Your task to perform on an android device: change the clock display to analog Image 0: 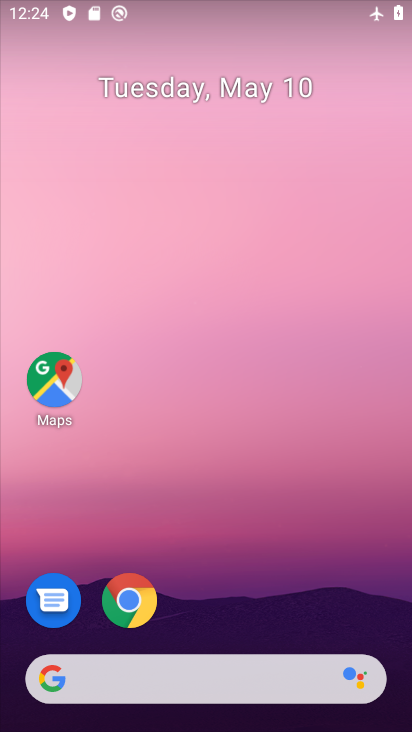
Step 0: drag from (195, 598) to (218, 120)
Your task to perform on an android device: change the clock display to analog Image 1: 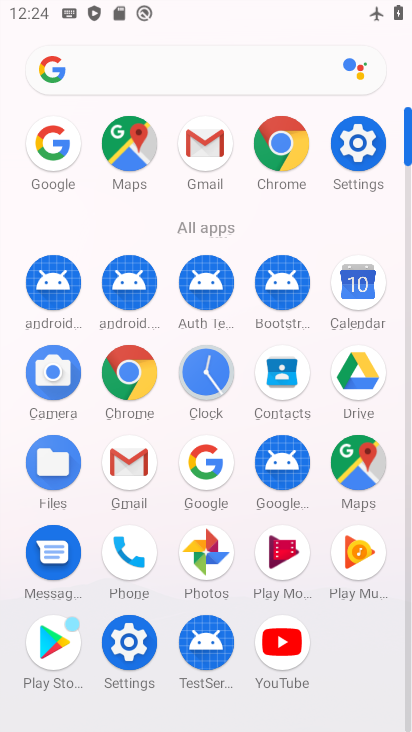
Step 1: click (223, 368)
Your task to perform on an android device: change the clock display to analog Image 2: 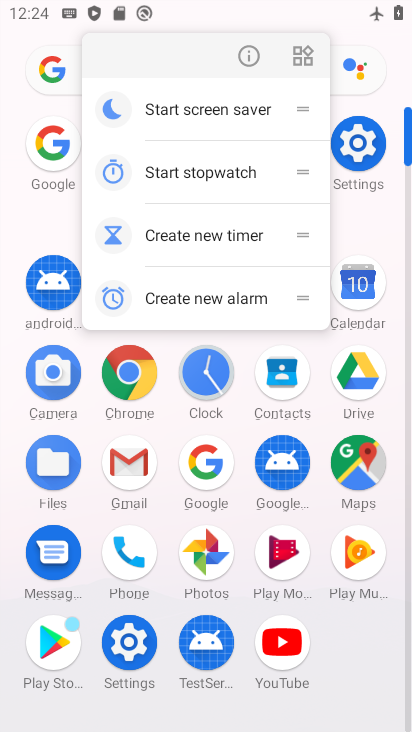
Step 2: click (217, 385)
Your task to perform on an android device: change the clock display to analog Image 3: 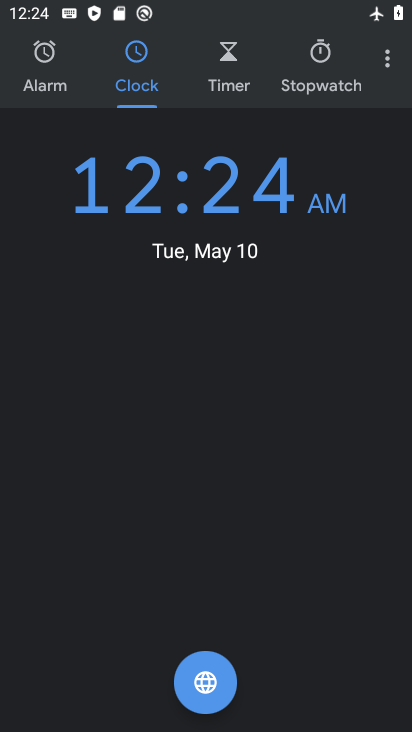
Step 3: click (403, 58)
Your task to perform on an android device: change the clock display to analog Image 4: 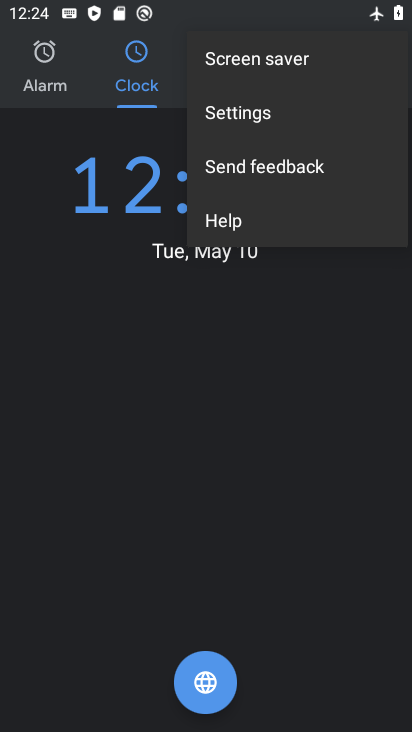
Step 4: click (253, 116)
Your task to perform on an android device: change the clock display to analog Image 5: 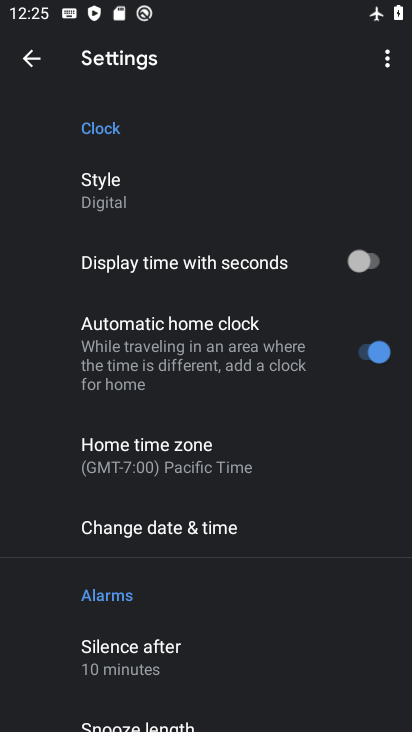
Step 5: click (149, 192)
Your task to perform on an android device: change the clock display to analog Image 6: 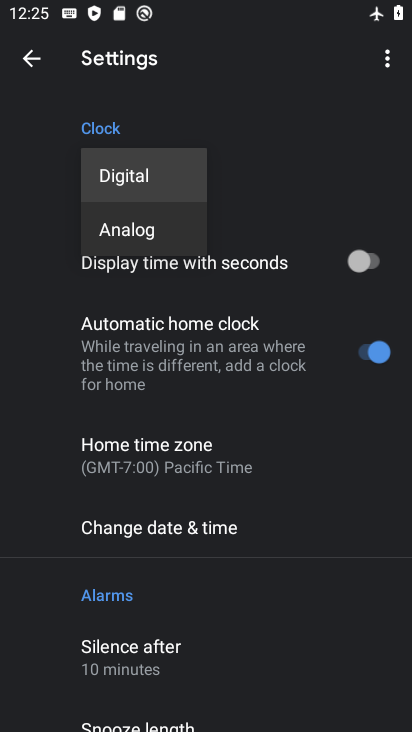
Step 6: click (122, 240)
Your task to perform on an android device: change the clock display to analog Image 7: 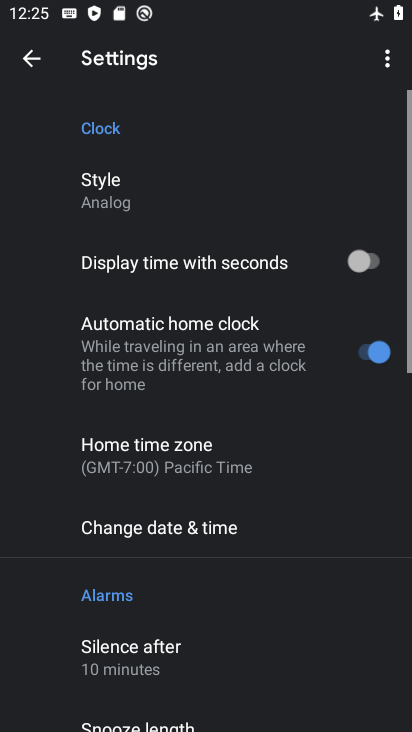
Step 7: task complete